Your task to perform on an android device: Search for the best 4K TV Image 0: 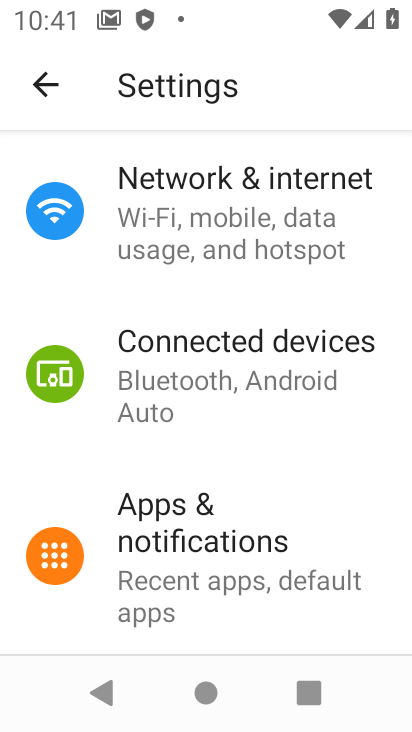
Step 0: press home button
Your task to perform on an android device: Search for the best 4K TV Image 1: 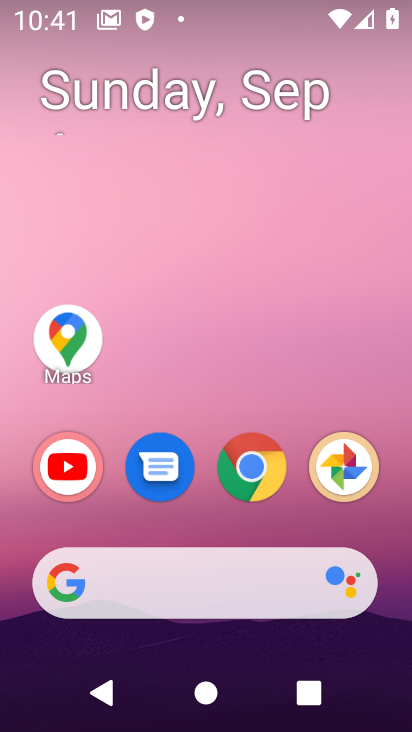
Step 1: click (247, 449)
Your task to perform on an android device: Search for the best 4K TV Image 2: 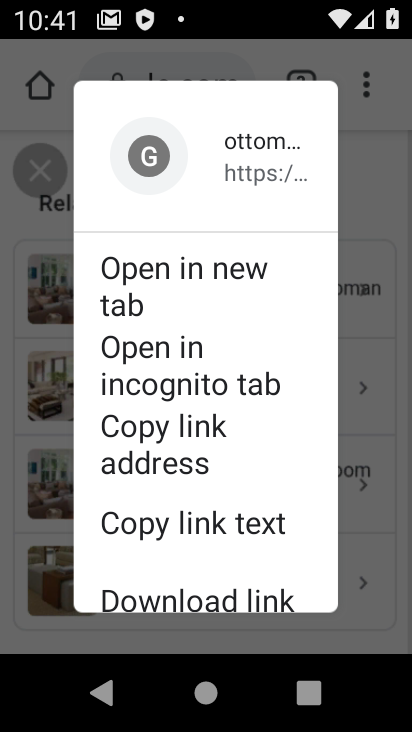
Step 2: click (183, 76)
Your task to perform on an android device: Search for the best 4K TV Image 3: 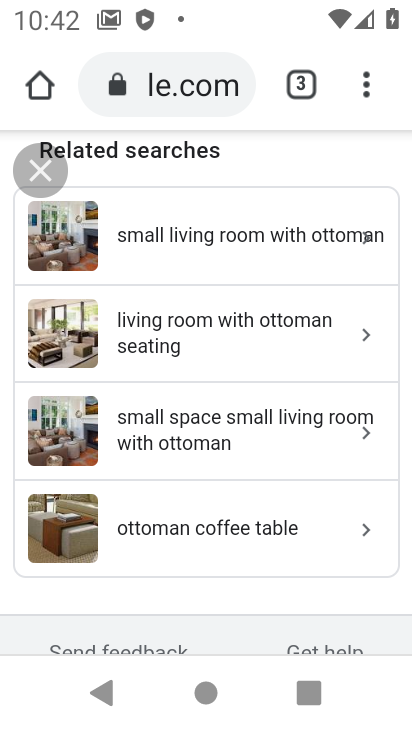
Step 3: click (218, 70)
Your task to perform on an android device: Search for the best 4K TV Image 4: 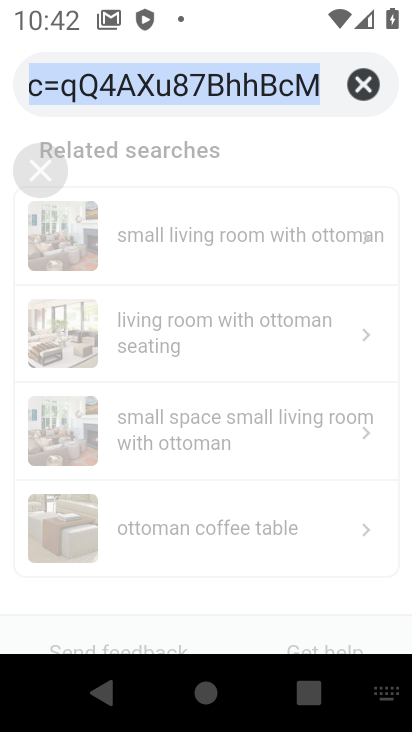
Step 4: click (367, 85)
Your task to perform on an android device: Search for the best 4K TV Image 5: 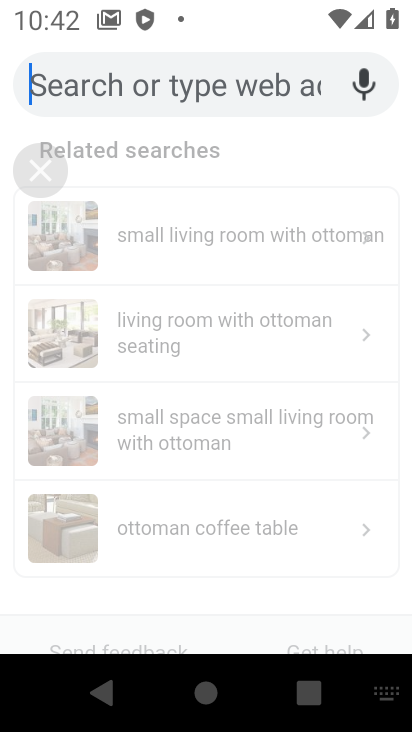
Step 5: type "best 4k tv"
Your task to perform on an android device: Search for the best 4K TV Image 6: 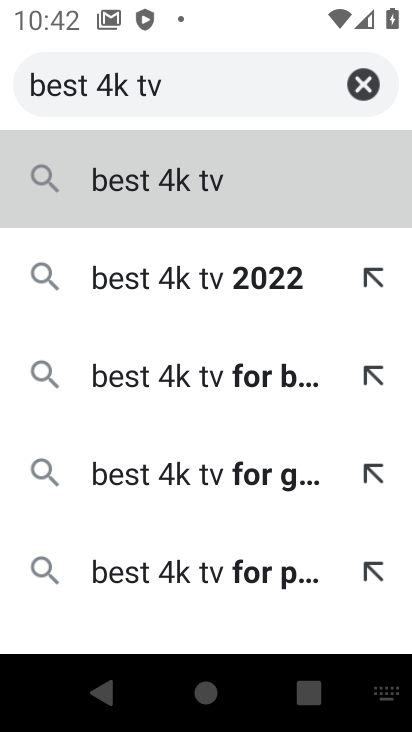
Step 6: type ""
Your task to perform on an android device: Search for the best 4K TV Image 7: 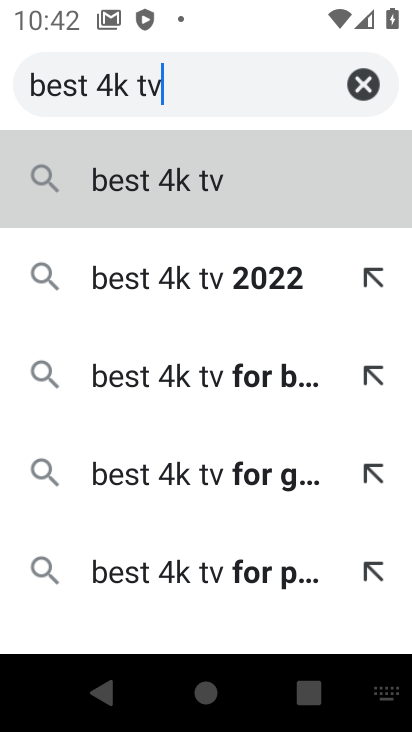
Step 7: click (165, 180)
Your task to perform on an android device: Search for the best 4K TV Image 8: 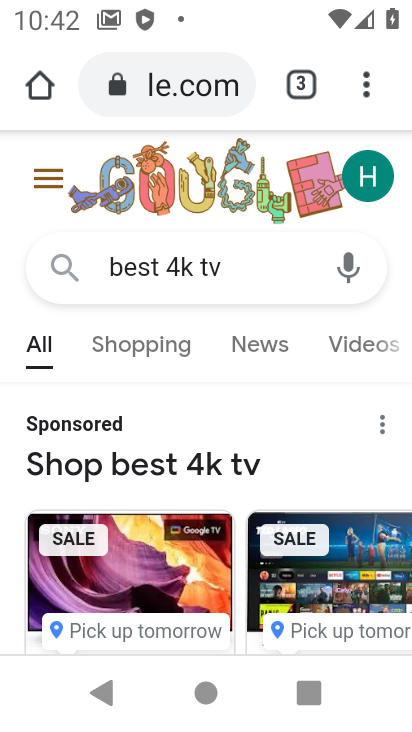
Step 8: drag from (348, 492) to (293, 249)
Your task to perform on an android device: Search for the best 4K TV Image 9: 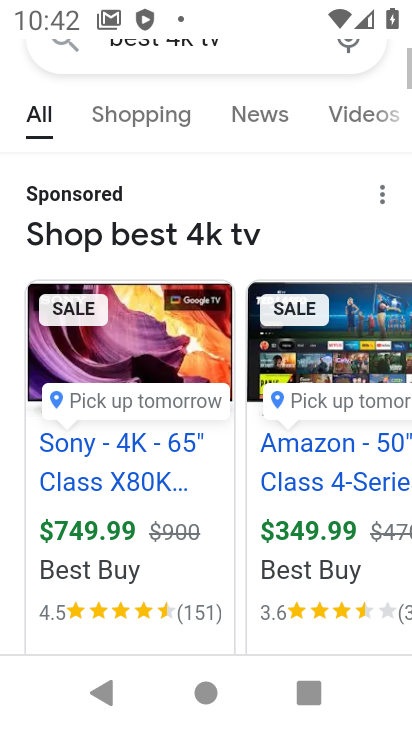
Step 9: drag from (246, 456) to (293, 237)
Your task to perform on an android device: Search for the best 4K TV Image 10: 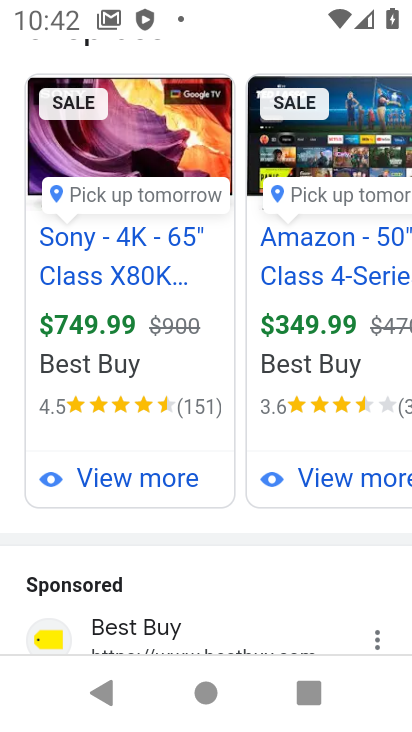
Step 10: click (115, 94)
Your task to perform on an android device: Search for the best 4K TV Image 11: 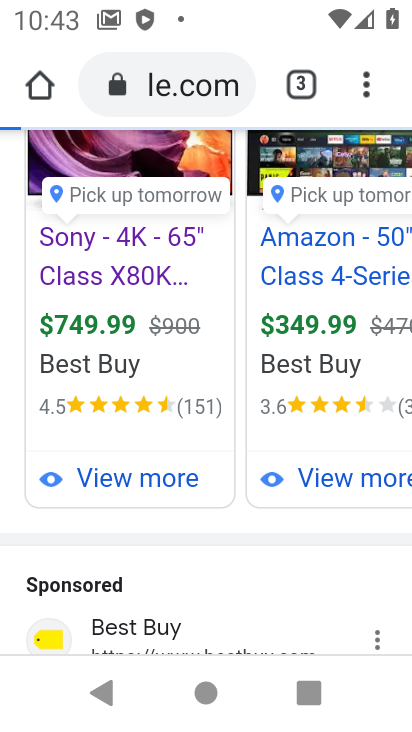
Step 11: click (164, 150)
Your task to perform on an android device: Search for the best 4K TV Image 12: 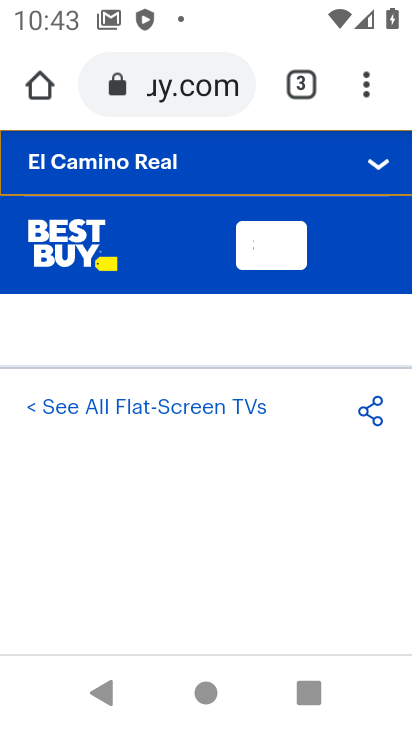
Step 12: task complete